Your task to perform on an android device: Open Google Chrome and click the shortcut for Amazon.com Image 0: 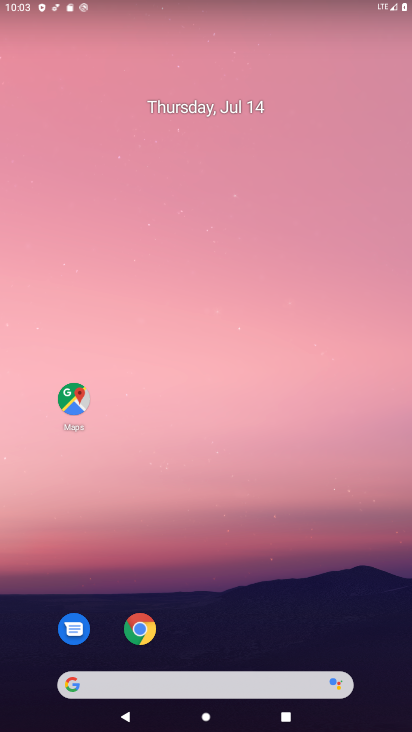
Step 0: click (146, 626)
Your task to perform on an android device: Open Google Chrome and click the shortcut for Amazon.com Image 1: 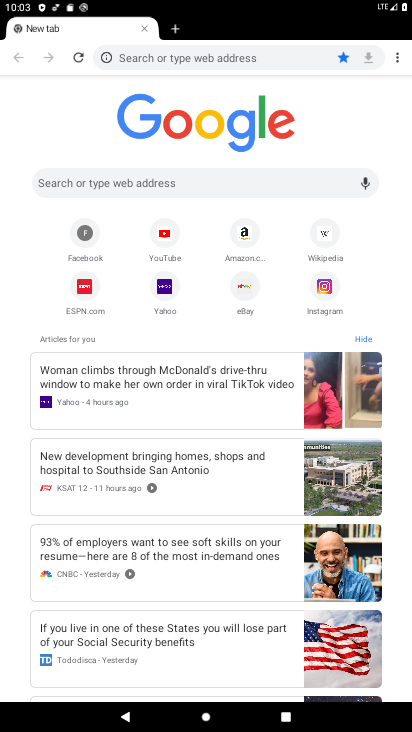
Step 1: click (241, 225)
Your task to perform on an android device: Open Google Chrome and click the shortcut for Amazon.com Image 2: 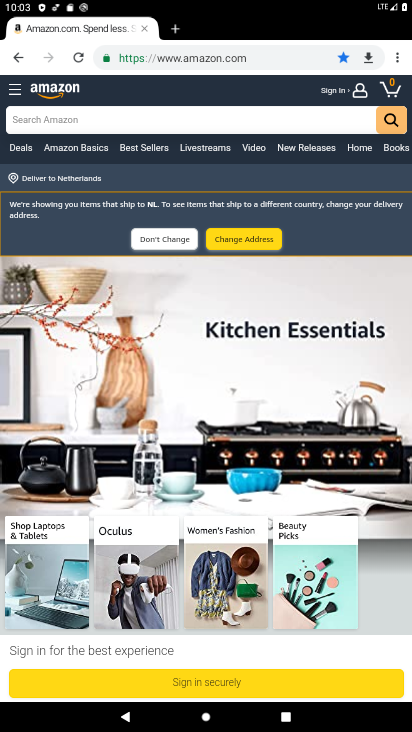
Step 2: task complete